Your task to perform on an android device: change your default location settings in chrome Image 0: 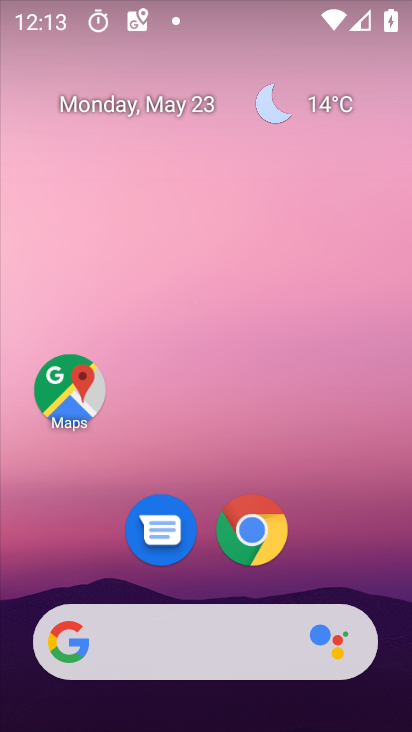
Step 0: click (240, 526)
Your task to perform on an android device: change your default location settings in chrome Image 1: 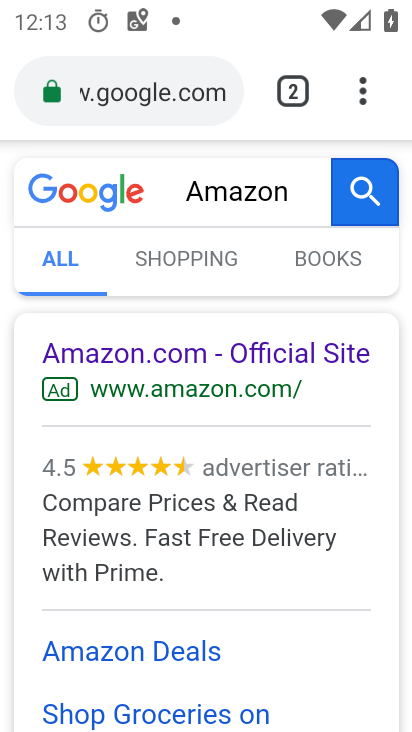
Step 1: click (360, 89)
Your task to perform on an android device: change your default location settings in chrome Image 2: 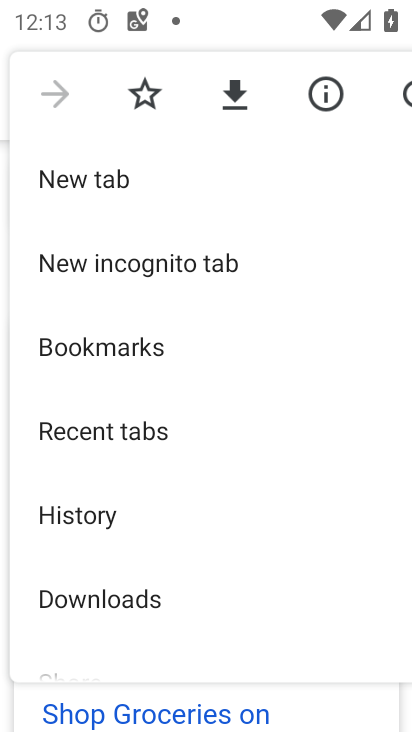
Step 2: drag from (206, 615) to (219, 262)
Your task to perform on an android device: change your default location settings in chrome Image 3: 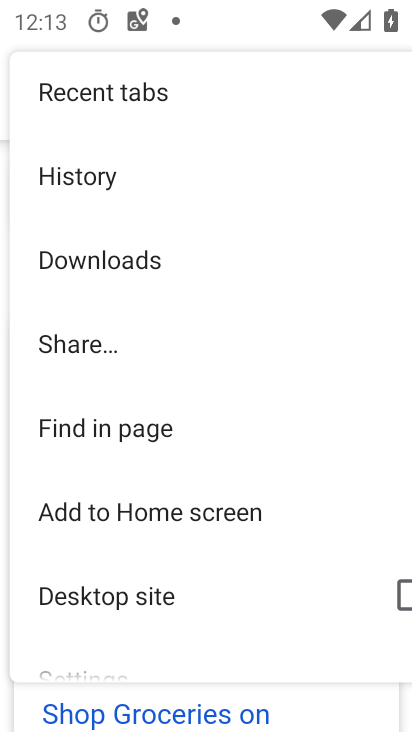
Step 3: drag from (204, 620) to (217, 289)
Your task to perform on an android device: change your default location settings in chrome Image 4: 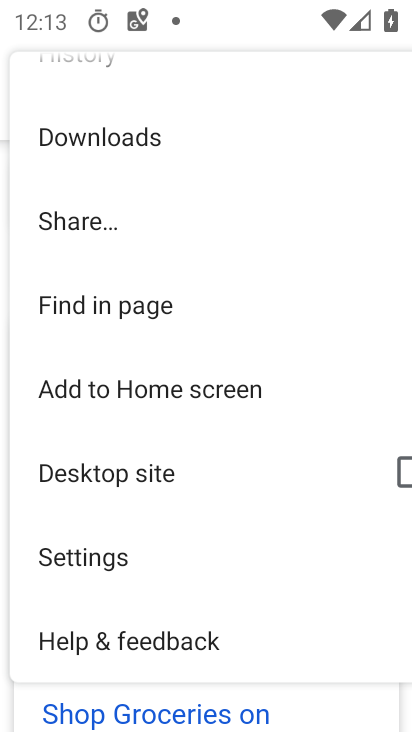
Step 4: click (101, 564)
Your task to perform on an android device: change your default location settings in chrome Image 5: 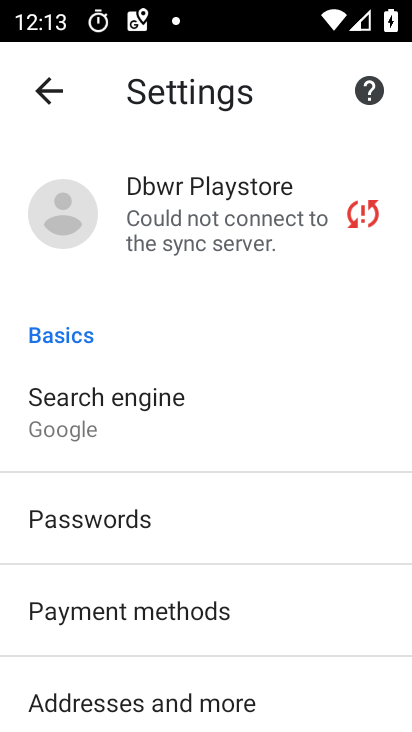
Step 5: drag from (311, 697) to (295, 243)
Your task to perform on an android device: change your default location settings in chrome Image 6: 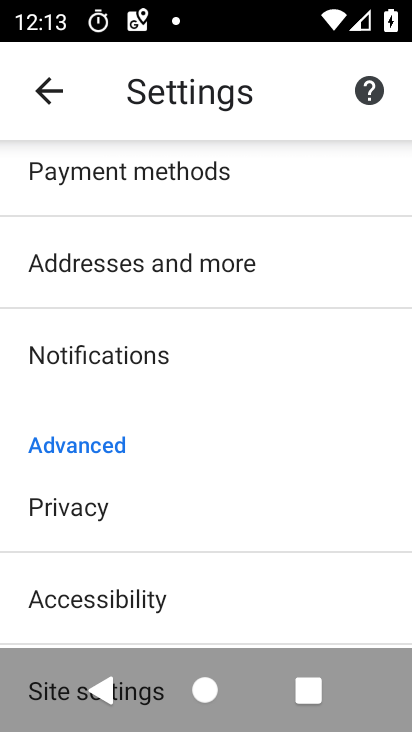
Step 6: drag from (252, 603) to (254, 296)
Your task to perform on an android device: change your default location settings in chrome Image 7: 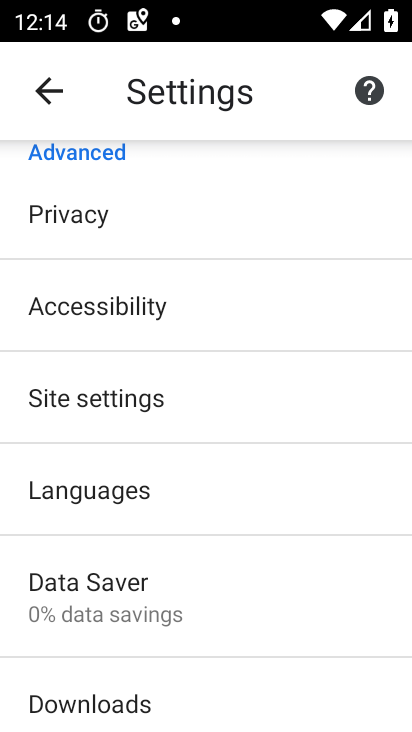
Step 7: click (139, 411)
Your task to perform on an android device: change your default location settings in chrome Image 8: 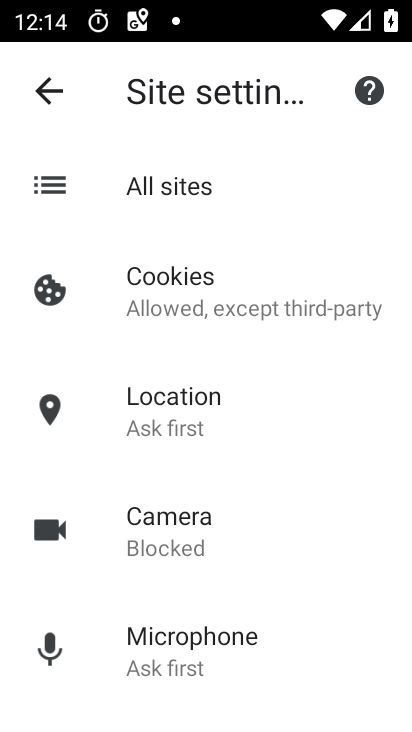
Step 8: drag from (333, 680) to (237, 296)
Your task to perform on an android device: change your default location settings in chrome Image 9: 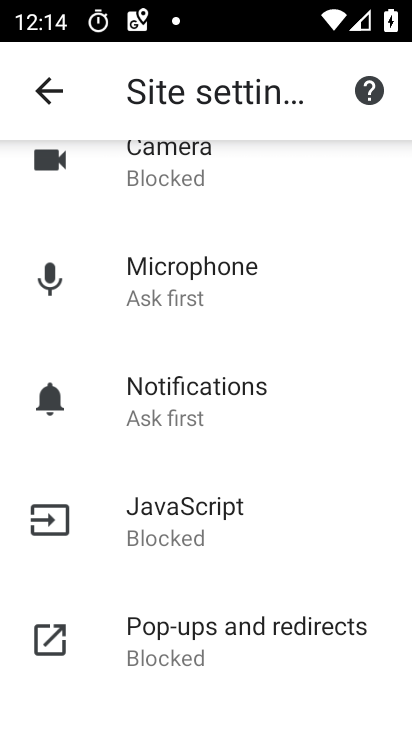
Step 9: drag from (324, 504) to (304, 289)
Your task to perform on an android device: change your default location settings in chrome Image 10: 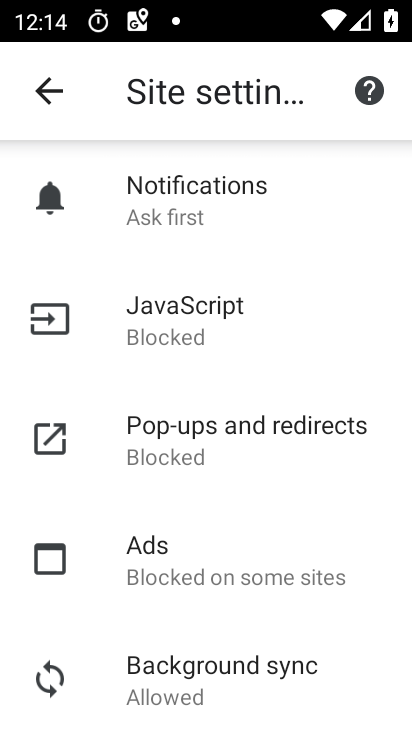
Step 10: drag from (315, 697) to (304, 244)
Your task to perform on an android device: change your default location settings in chrome Image 11: 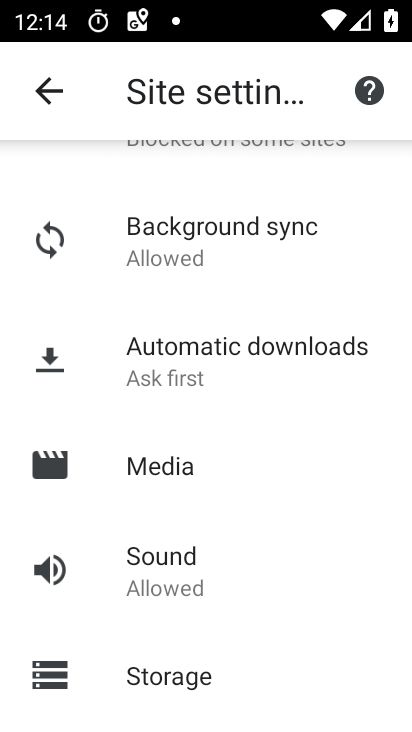
Step 11: drag from (271, 176) to (375, 678)
Your task to perform on an android device: change your default location settings in chrome Image 12: 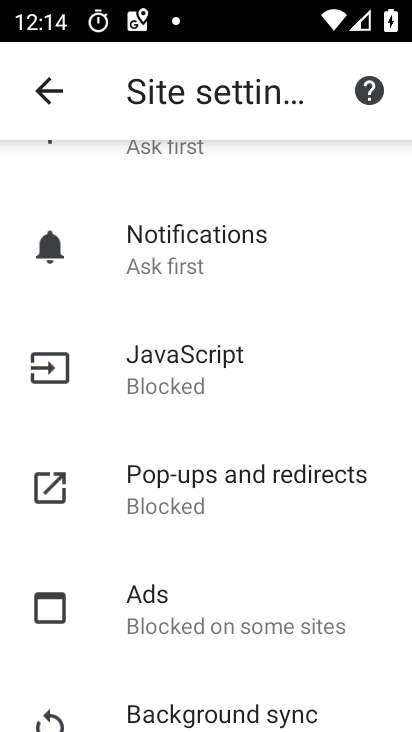
Step 12: drag from (300, 197) to (335, 570)
Your task to perform on an android device: change your default location settings in chrome Image 13: 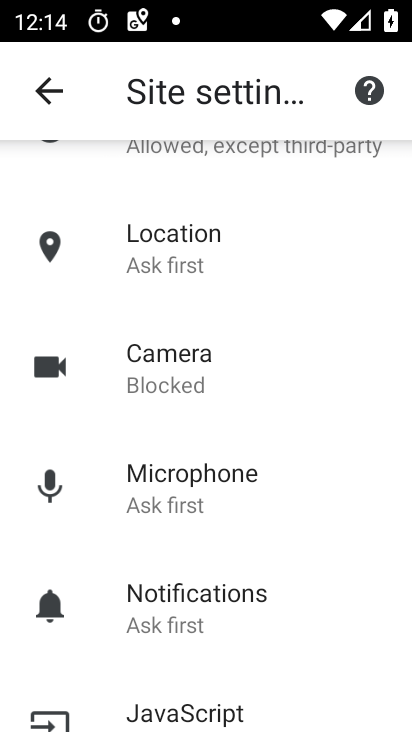
Step 13: click (140, 227)
Your task to perform on an android device: change your default location settings in chrome Image 14: 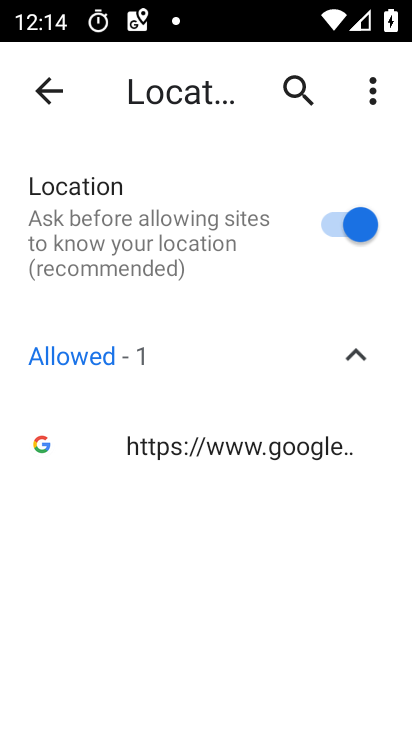
Step 14: task complete